Your task to perform on an android device: Play the last video I watched on Youtube Image 0: 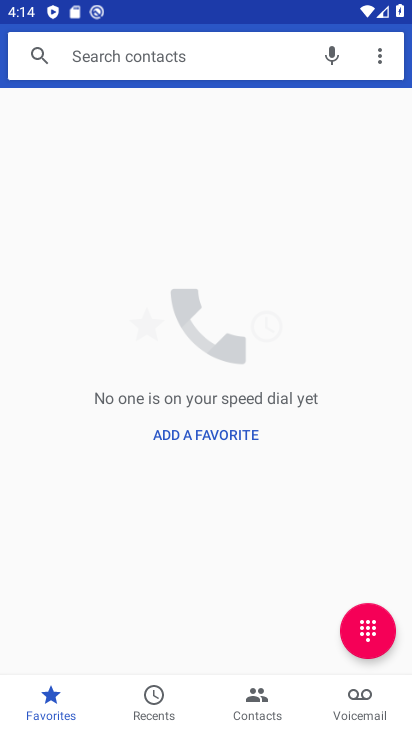
Step 0: press back button
Your task to perform on an android device: Play the last video I watched on Youtube Image 1: 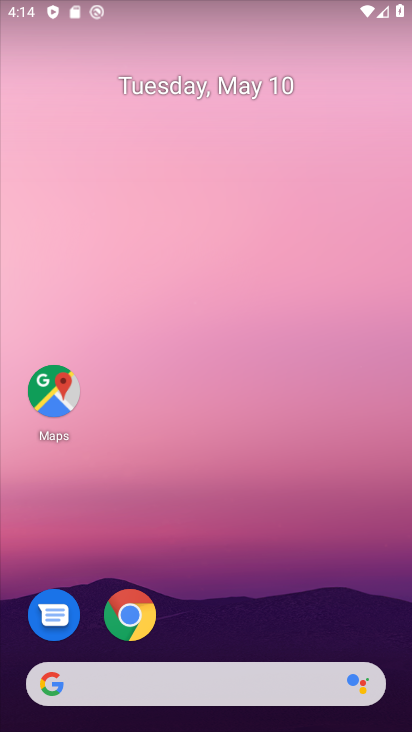
Step 1: drag from (261, 653) to (350, 218)
Your task to perform on an android device: Play the last video I watched on Youtube Image 2: 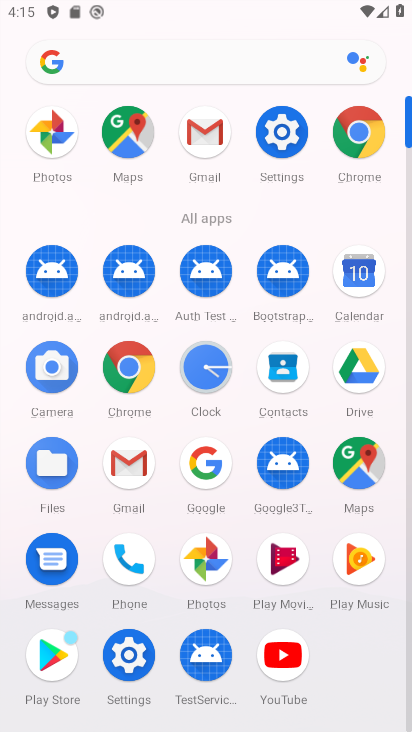
Step 2: click (287, 669)
Your task to perform on an android device: Play the last video I watched on Youtube Image 3: 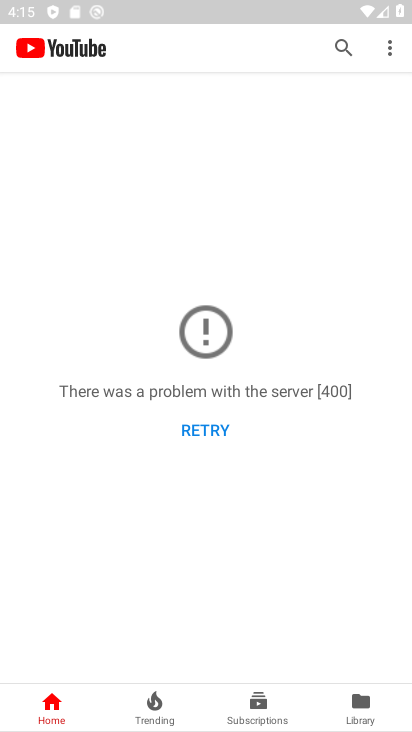
Step 3: click (375, 719)
Your task to perform on an android device: Play the last video I watched on Youtube Image 4: 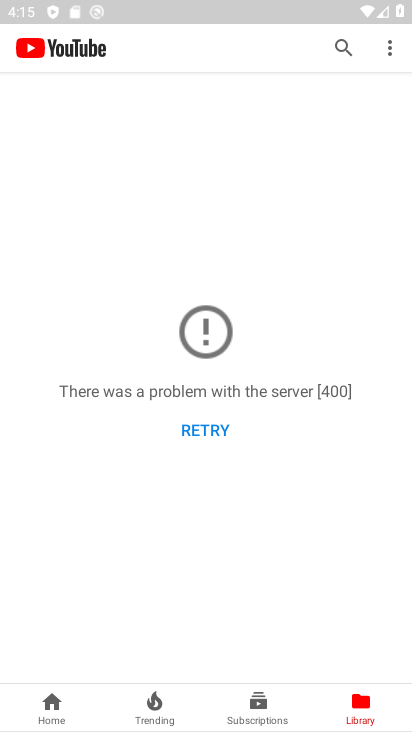
Step 4: task complete